Your task to perform on an android device: Is it going to rain today? Image 0: 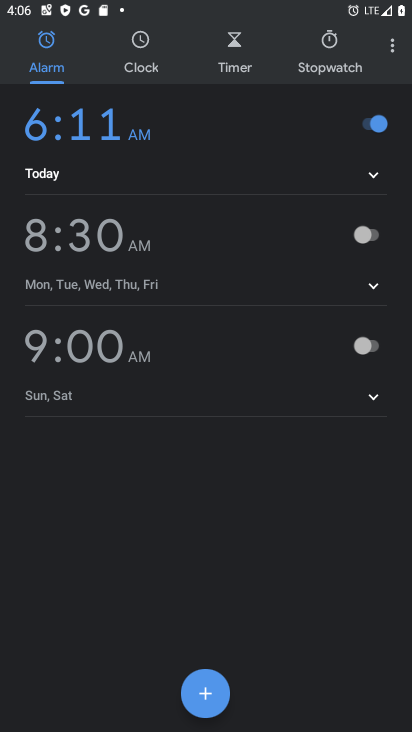
Step 0: press home button
Your task to perform on an android device: Is it going to rain today? Image 1: 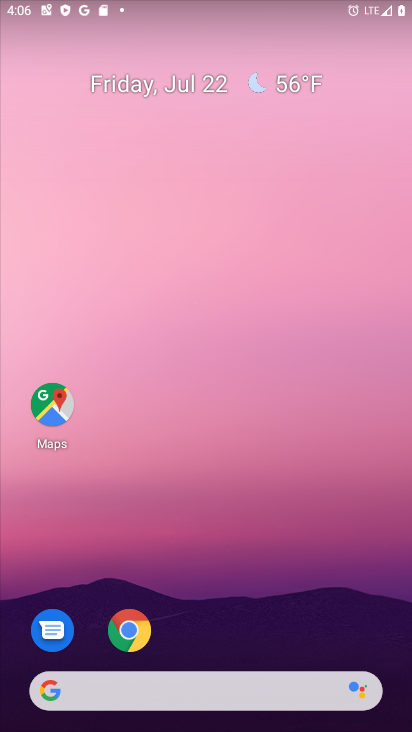
Step 1: click (272, 81)
Your task to perform on an android device: Is it going to rain today? Image 2: 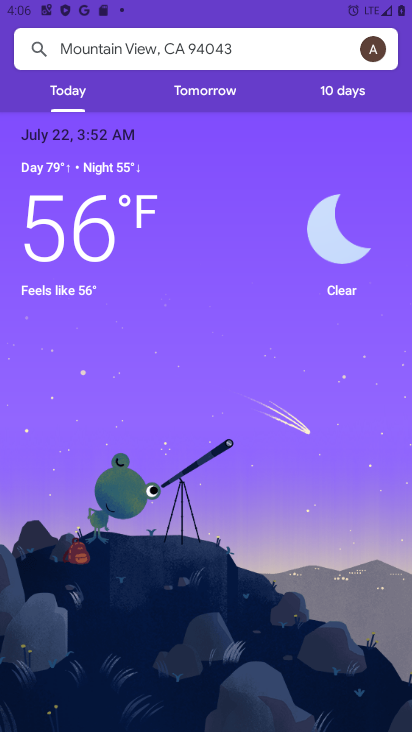
Step 2: task complete